Your task to perform on an android device: Go to Android settings Image 0: 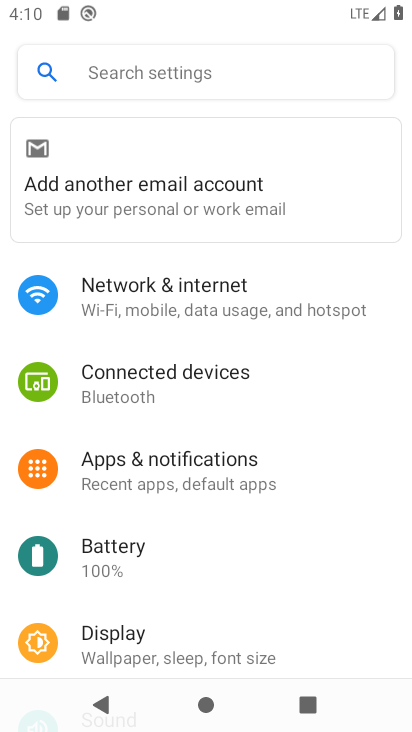
Step 0: drag from (246, 628) to (228, 225)
Your task to perform on an android device: Go to Android settings Image 1: 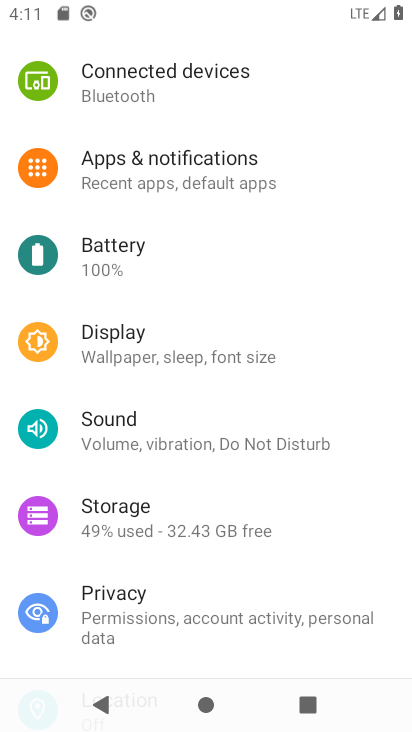
Step 1: drag from (200, 534) to (196, 208)
Your task to perform on an android device: Go to Android settings Image 2: 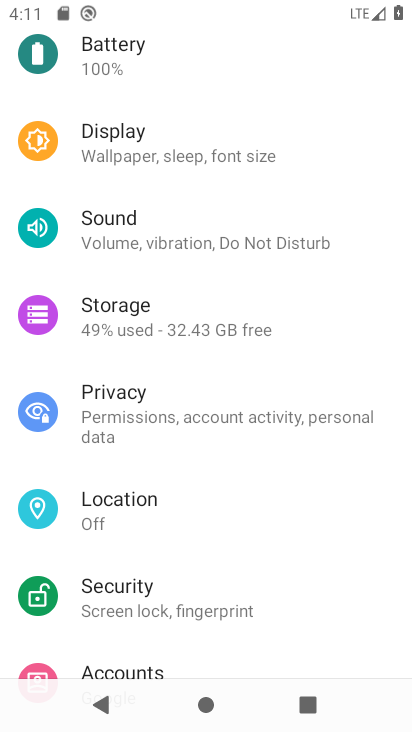
Step 2: drag from (178, 588) to (203, 225)
Your task to perform on an android device: Go to Android settings Image 3: 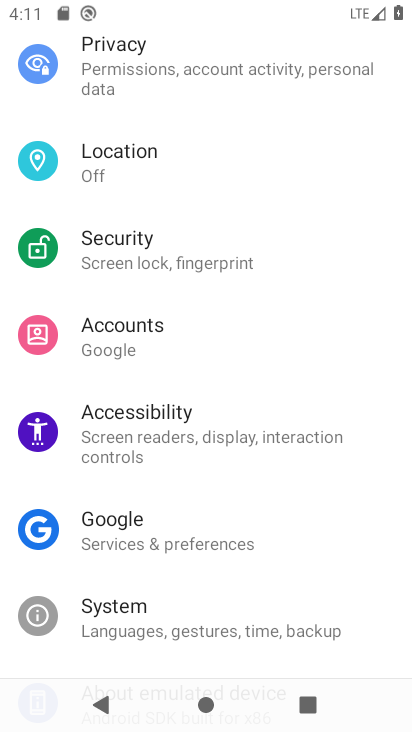
Step 3: click (111, 628)
Your task to perform on an android device: Go to Android settings Image 4: 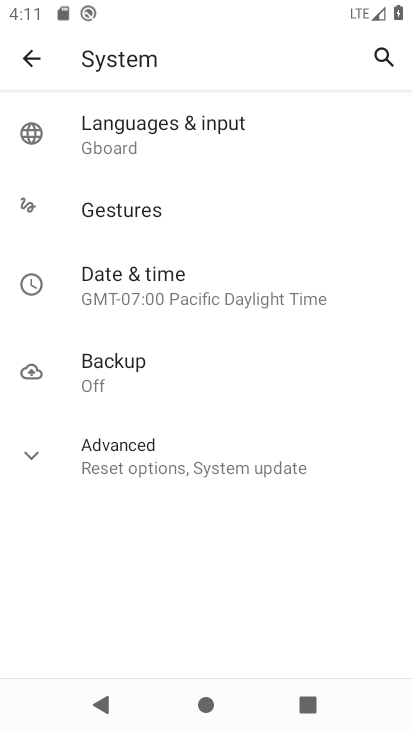
Step 4: task complete